Your task to perform on an android device: set the stopwatch Image 0: 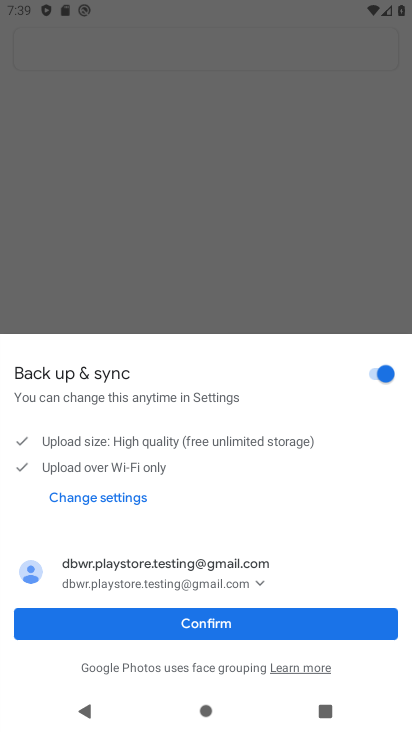
Step 0: press home button
Your task to perform on an android device: set the stopwatch Image 1: 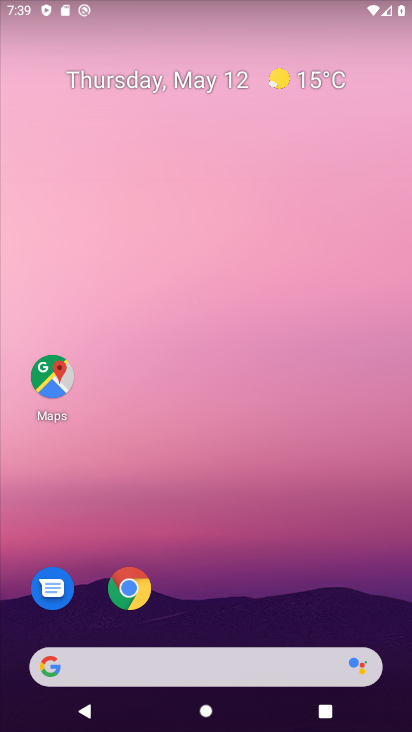
Step 1: click (245, 232)
Your task to perform on an android device: set the stopwatch Image 2: 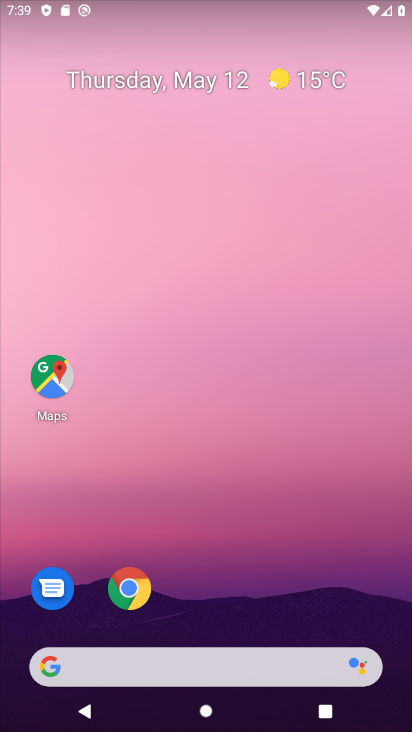
Step 2: drag from (202, 611) to (172, 234)
Your task to perform on an android device: set the stopwatch Image 3: 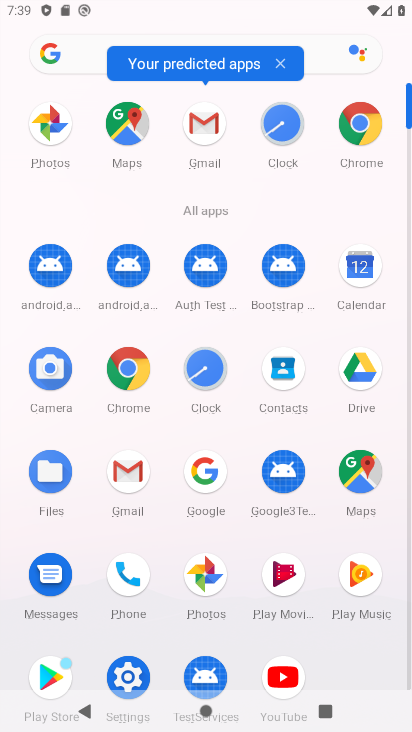
Step 3: click (211, 371)
Your task to perform on an android device: set the stopwatch Image 4: 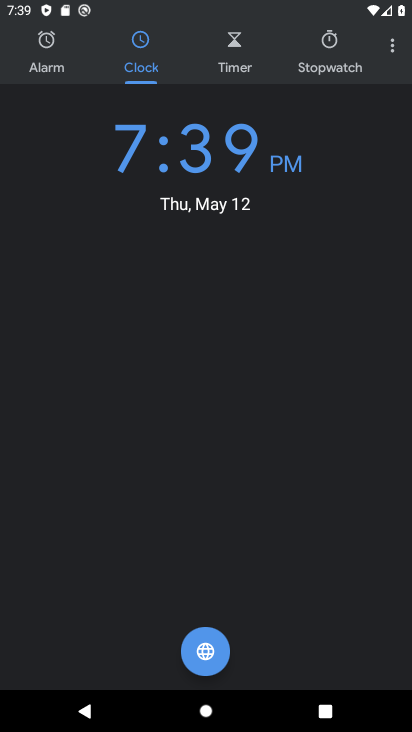
Step 4: click (330, 67)
Your task to perform on an android device: set the stopwatch Image 5: 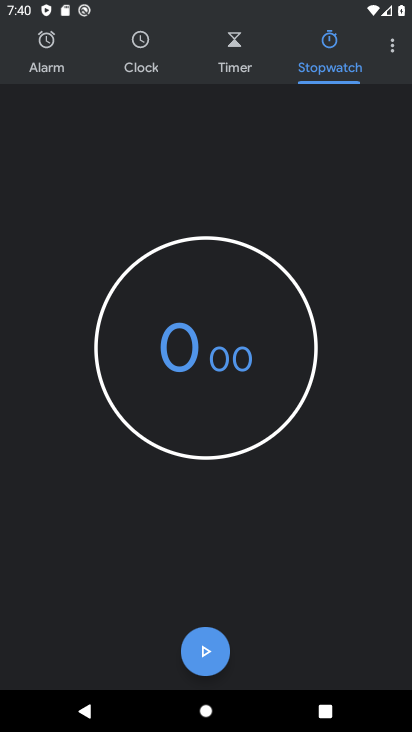
Step 5: click (186, 344)
Your task to perform on an android device: set the stopwatch Image 6: 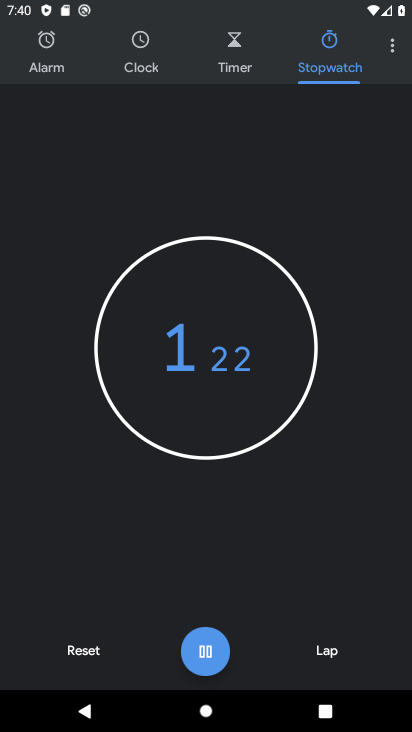
Step 6: task complete